Your task to perform on an android device: turn off location history Image 0: 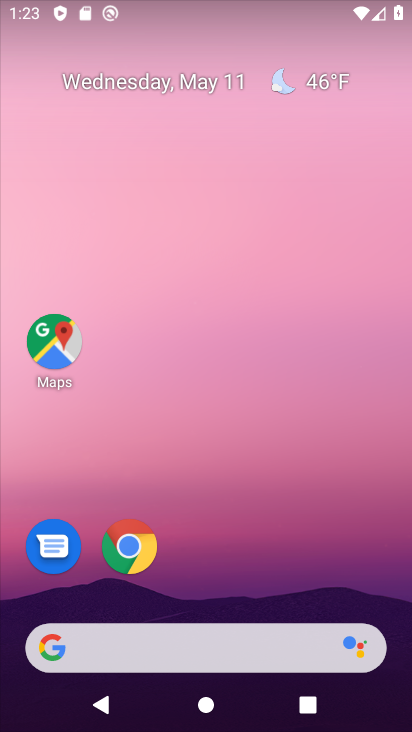
Step 0: drag from (250, 595) to (273, 100)
Your task to perform on an android device: turn off location history Image 1: 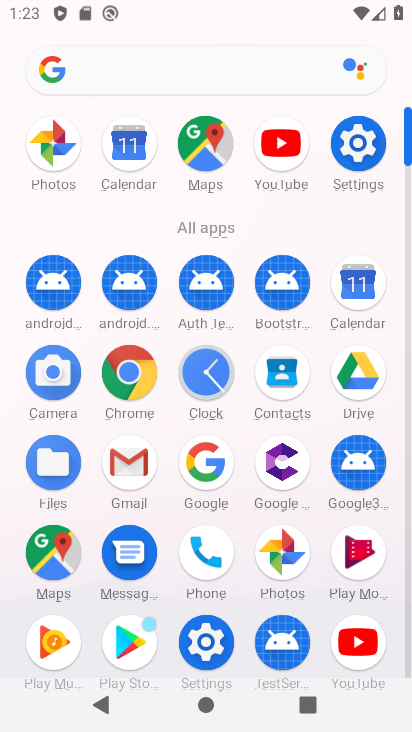
Step 1: click (200, 636)
Your task to perform on an android device: turn off location history Image 2: 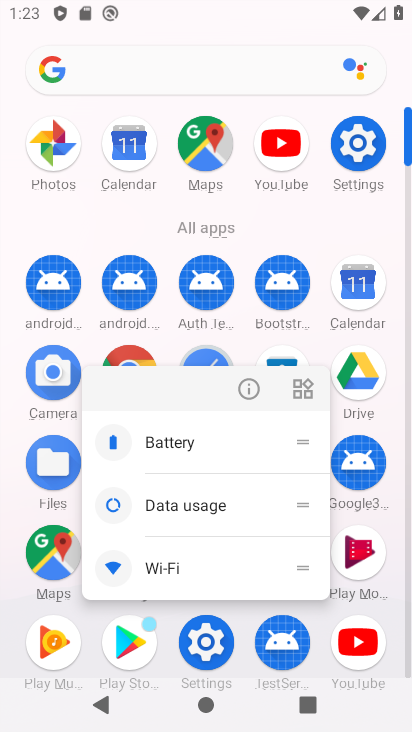
Step 2: click (258, 382)
Your task to perform on an android device: turn off location history Image 3: 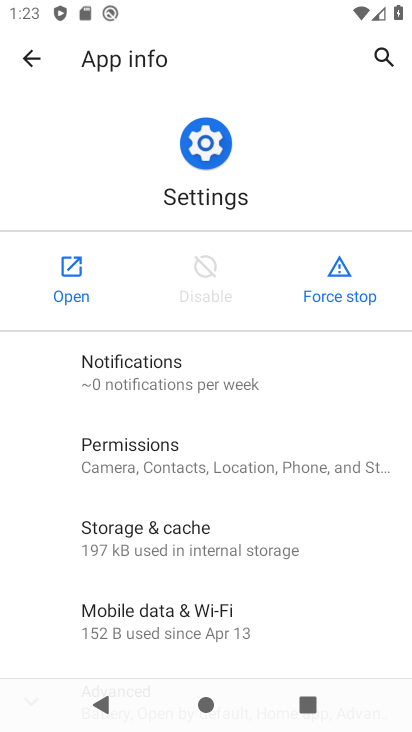
Step 3: click (81, 283)
Your task to perform on an android device: turn off location history Image 4: 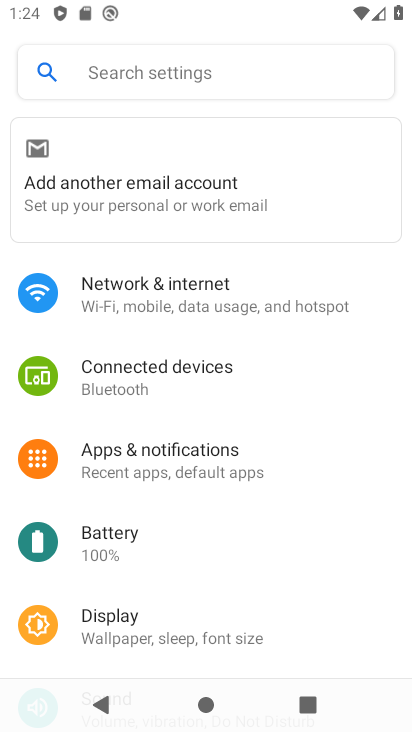
Step 4: drag from (191, 580) to (282, 138)
Your task to perform on an android device: turn off location history Image 5: 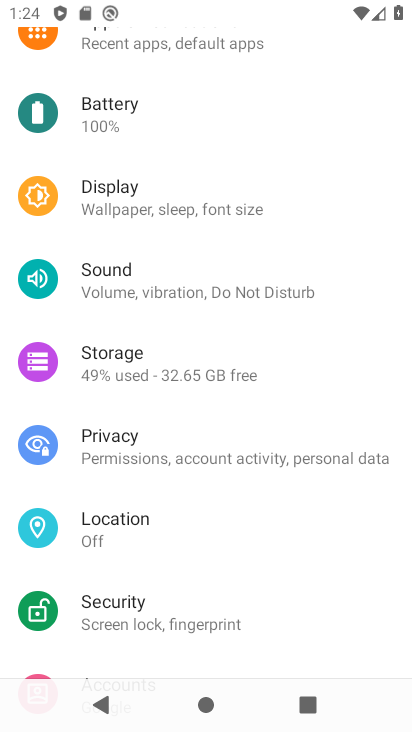
Step 5: click (127, 524)
Your task to perform on an android device: turn off location history Image 6: 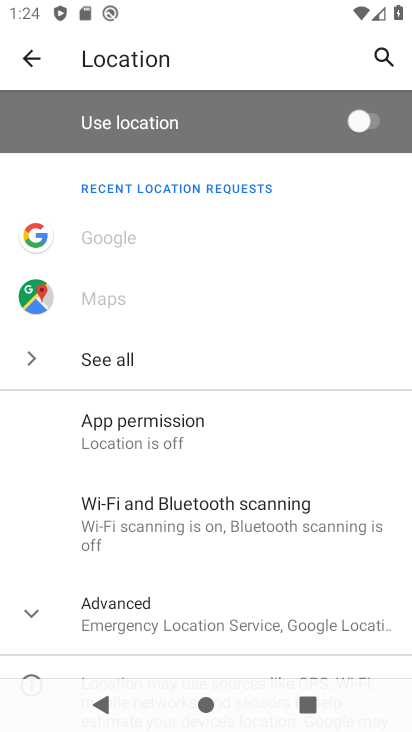
Step 6: click (157, 629)
Your task to perform on an android device: turn off location history Image 7: 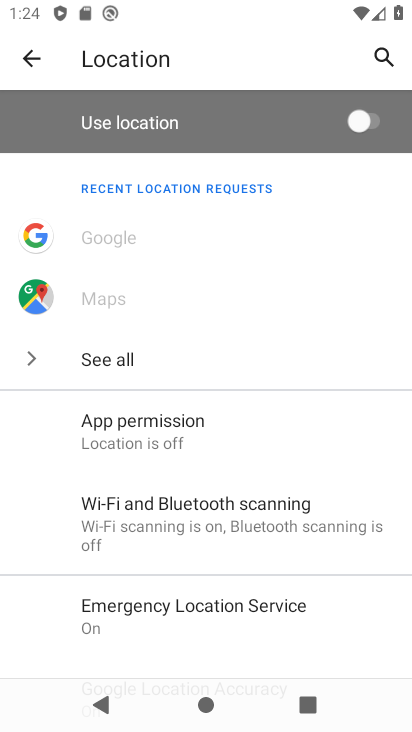
Step 7: drag from (249, 577) to (313, 150)
Your task to perform on an android device: turn off location history Image 8: 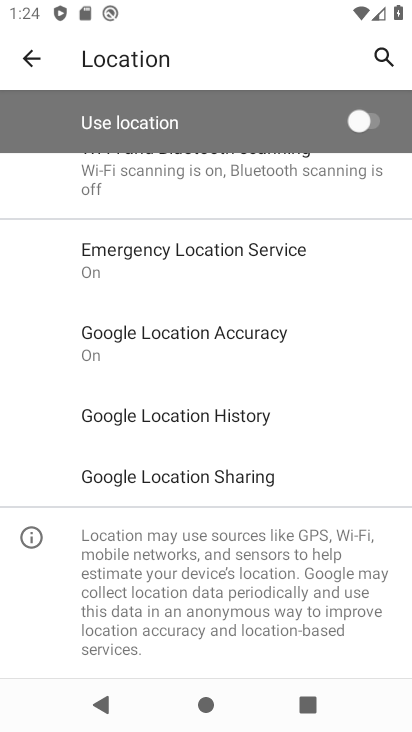
Step 8: click (182, 404)
Your task to perform on an android device: turn off location history Image 9: 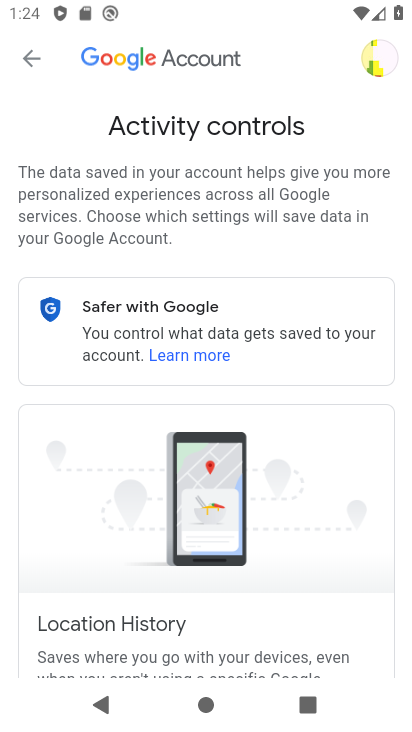
Step 9: drag from (218, 615) to (365, 65)
Your task to perform on an android device: turn off location history Image 10: 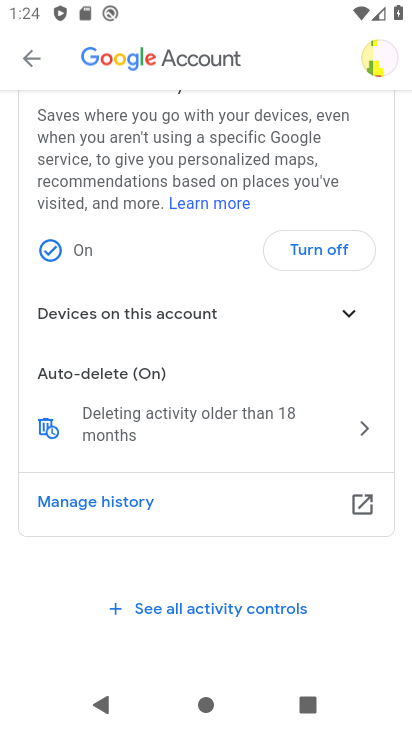
Step 10: drag from (158, 240) to (237, 344)
Your task to perform on an android device: turn off location history Image 11: 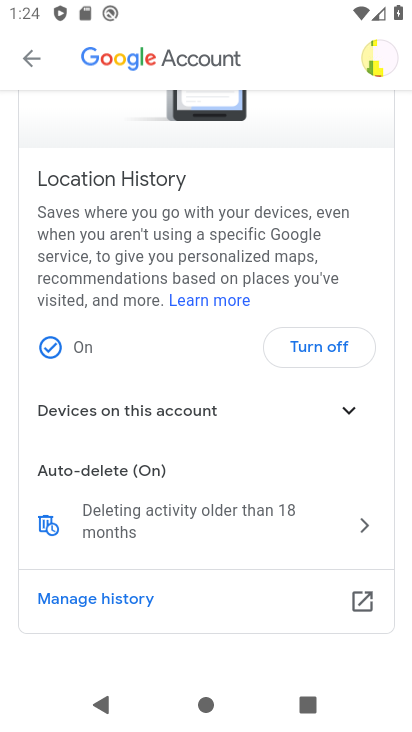
Step 11: click (307, 346)
Your task to perform on an android device: turn off location history Image 12: 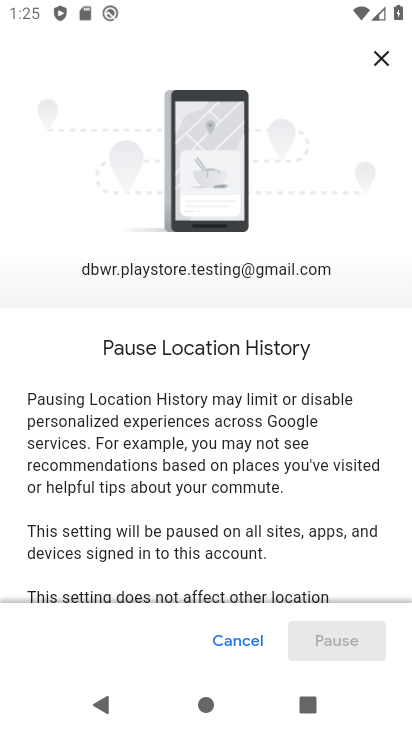
Step 12: drag from (263, 522) to (335, 44)
Your task to perform on an android device: turn off location history Image 13: 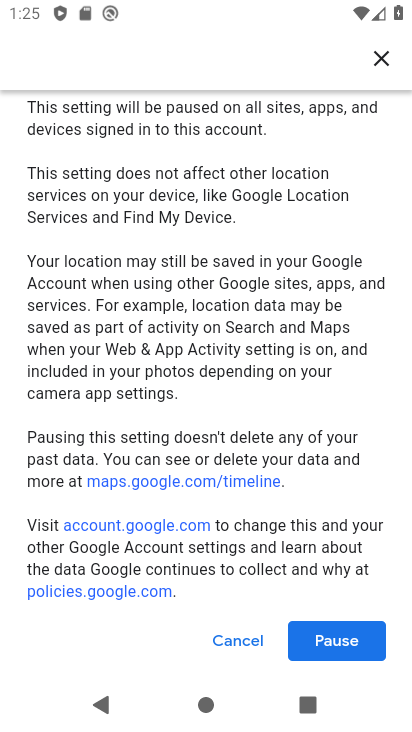
Step 13: drag from (123, 510) to (214, 108)
Your task to perform on an android device: turn off location history Image 14: 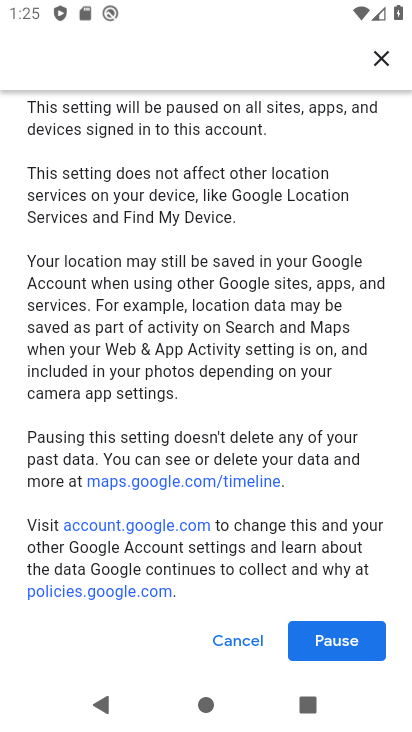
Step 14: drag from (227, 533) to (251, 124)
Your task to perform on an android device: turn off location history Image 15: 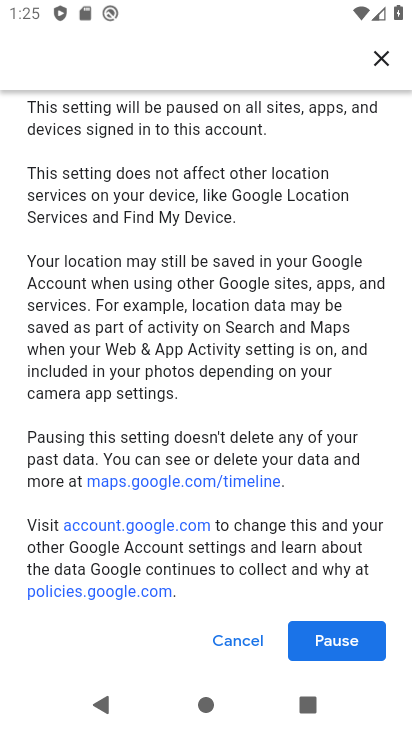
Step 15: click (347, 652)
Your task to perform on an android device: turn off location history Image 16: 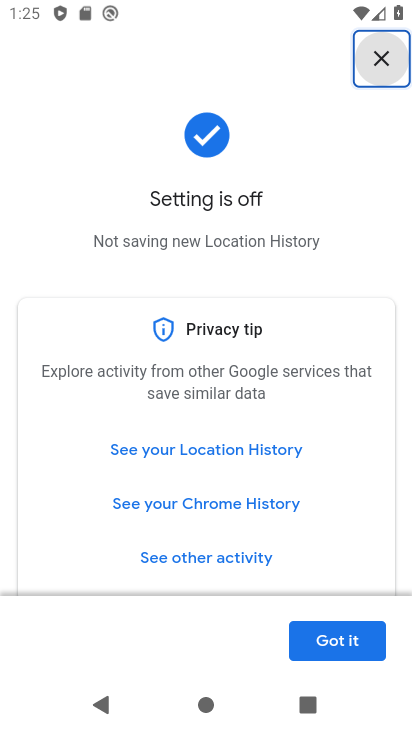
Step 16: drag from (202, 519) to (292, 136)
Your task to perform on an android device: turn off location history Image 17: 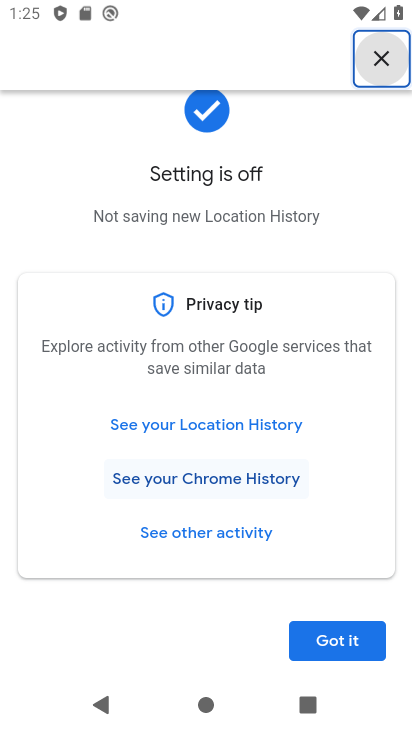
Step 17: click (339, 650)
Your task to perform on an android device: turn off location history Image 18: 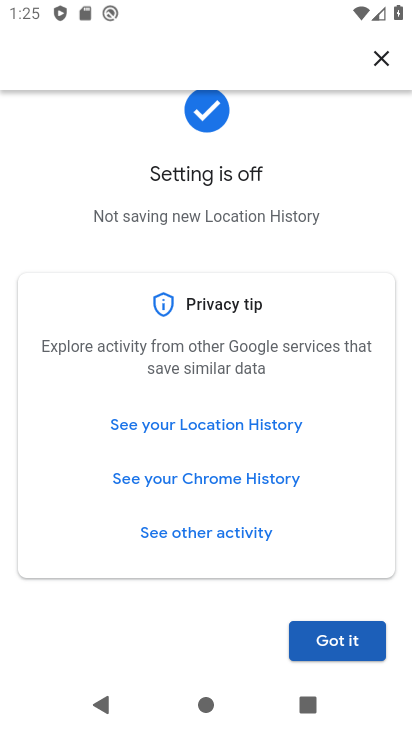
Step 18: click (335, 641)
Your task to perform on an android device: turn off location history Image 19: 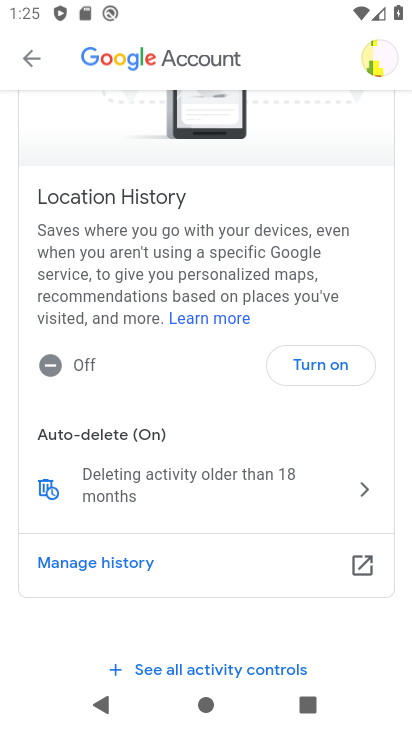
Step 19: task complete